Your task to perform on an android device: Open accessibility settings Image 0: 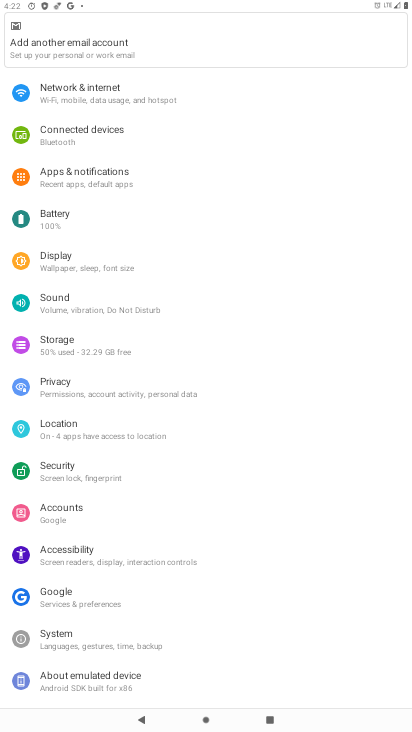
Step 0: click (211, 546)
Your task to perform on an android device: Open accessibility settings Image 1: 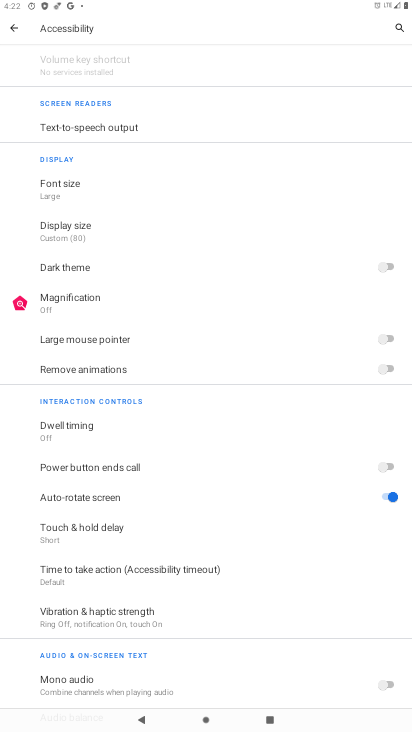
Step 1: task complete